Your task to perform on an android device: Turn off the flashlight Image 0: 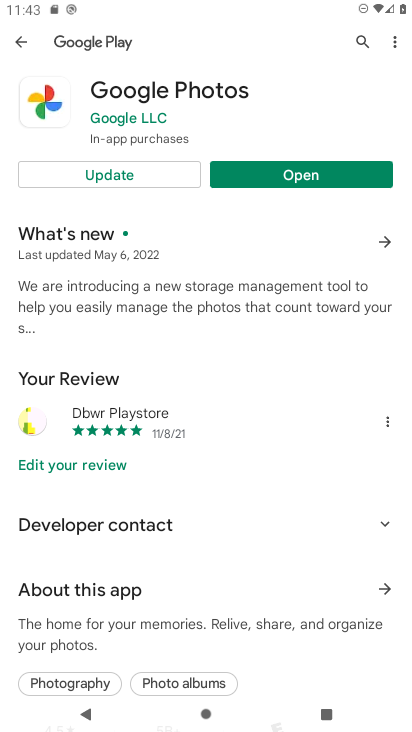
Step 0: press home button
Your task to perform on an android device: Turn off the flashlight Image 1: 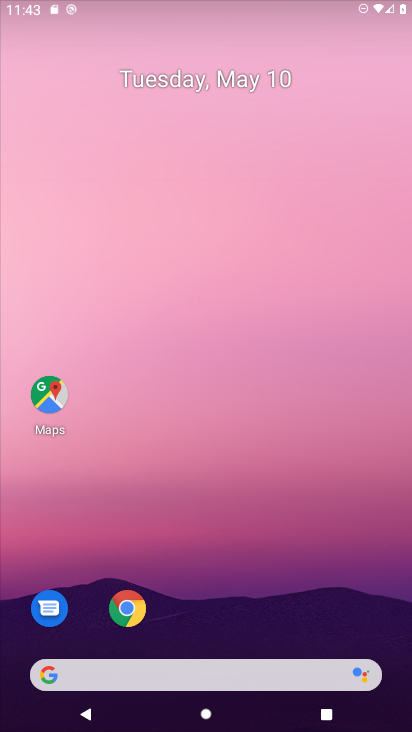
Step 1: drag from (229, 540) to (190, 77)
Your task to perform on an android device: Turn off the flashlight Image 2: 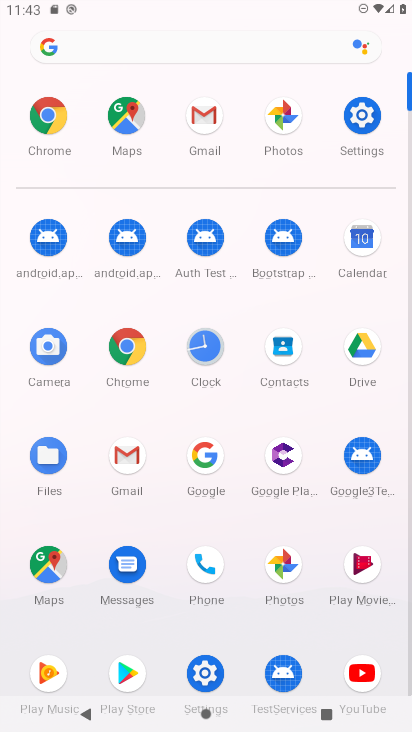
Step 2: click (356, 117)
Your task to perform on an android device: Turn off the flashlight Image 3: 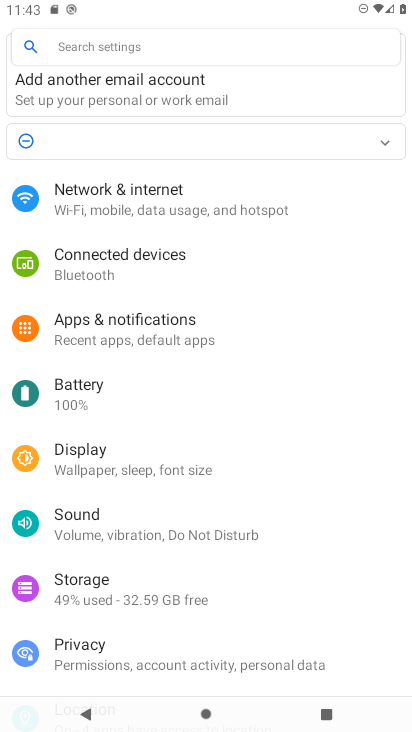
Step 3: click (202, 42)
Your task to perform on an android device: Turn off the flashlight Image 4: 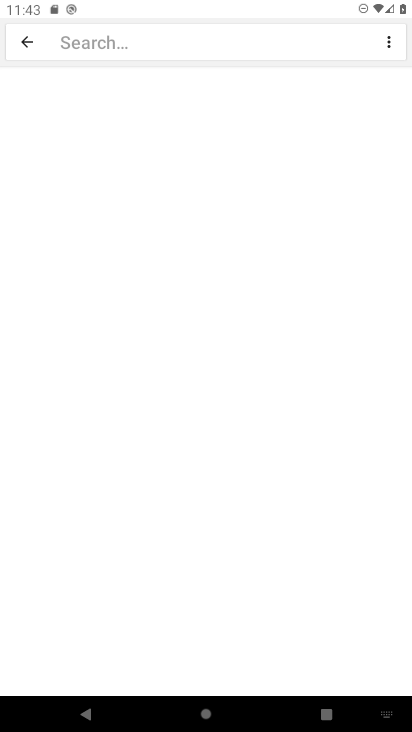
Step 4: type "Flashlight"
Your task to perform on an android device: Turn off the flashlight Image 5: 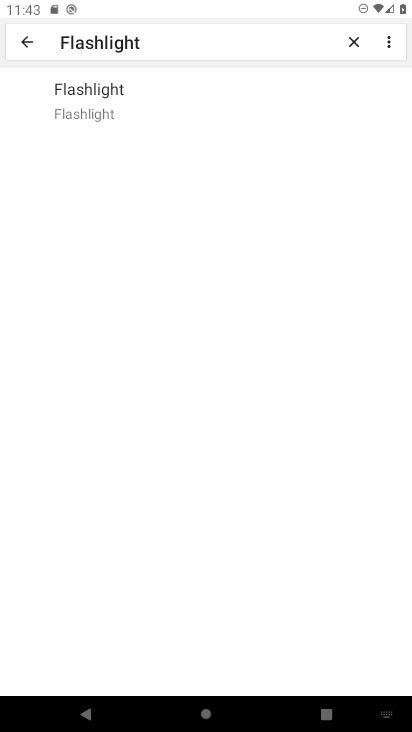
Step 5: click (94, 105)
Your task to perform on an android device: Turn off the flashlight Image 6: 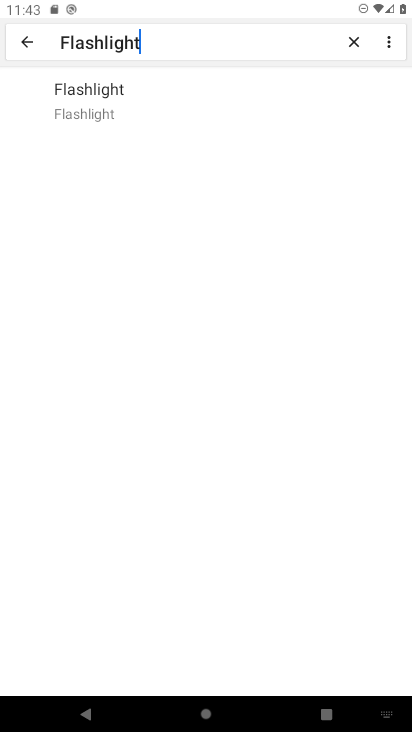
Step 6: task complete